Your task to perform on an android device: allow cookies in the chrome app Image 0: 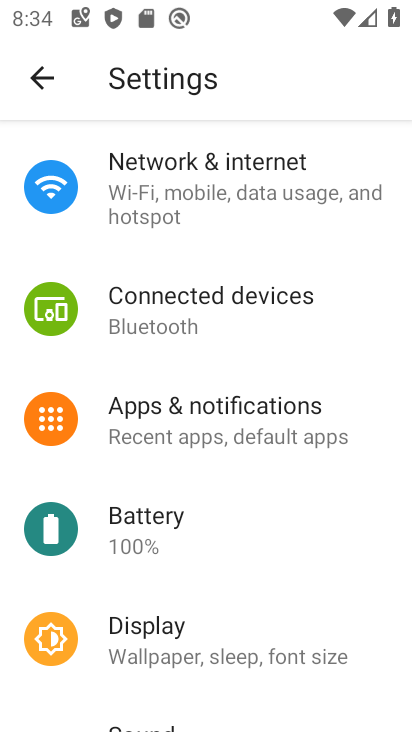
Step 0: press home button
Your task to perform on an android device: allow cookies in the chrome app Image 1: 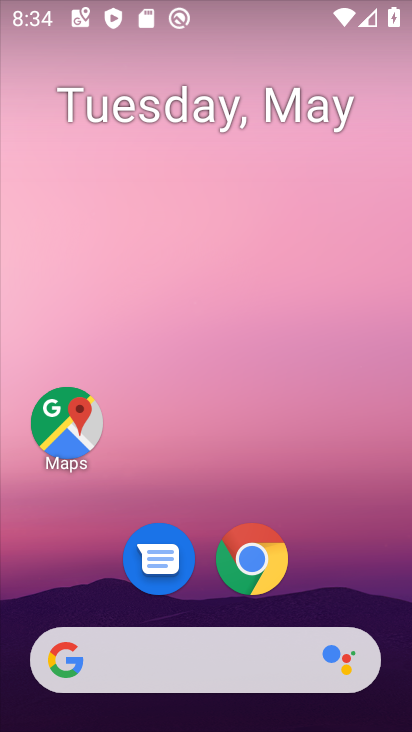
Step 1: click (262, 565)
Your task to perform on an android device: allow cookies in the chrome app Image 2: 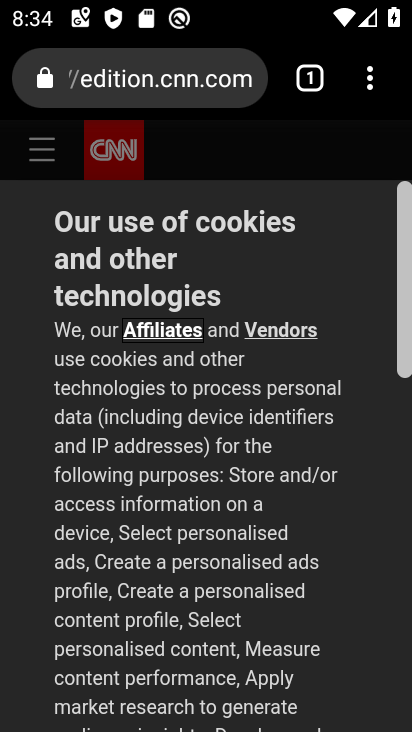
Step 2: drag from (373, 94) to (125, 610)
Your task to perform on an android device: allow cookies in the chrome app Image 3: 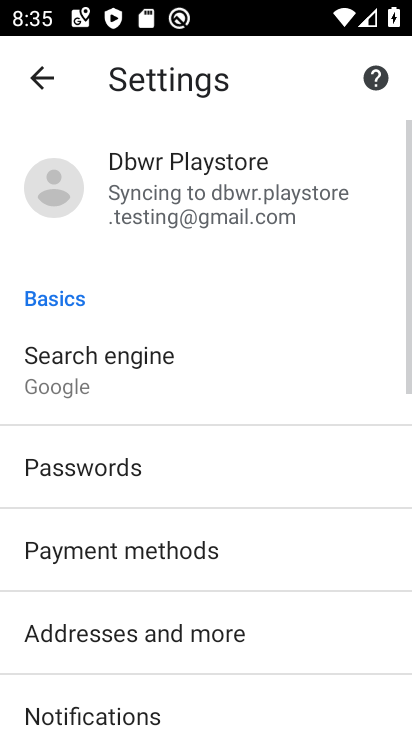
Step 3: drag from (135, 616) to (148, 241)
Your task to perform on an android device: allow cookies in the chrome app Image 4: 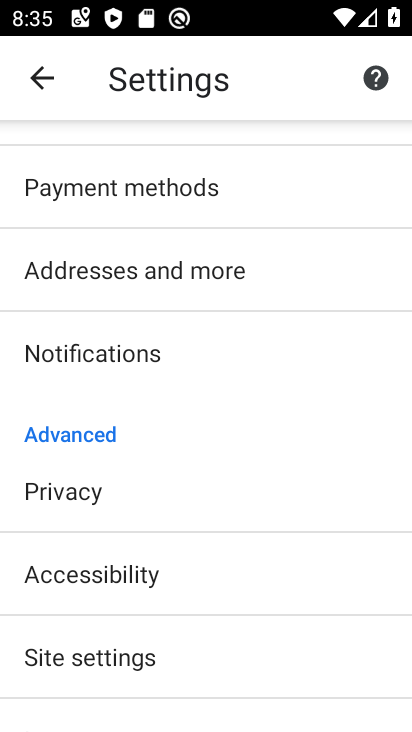
Step 4: click (86, 652)
Your task to perform on an android device: allow cookies in the chrome app Image 5: 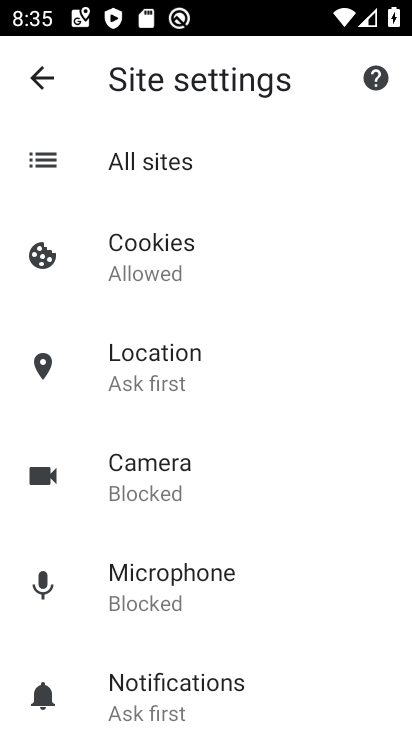
Step 5: click (168, 259)
Your task to perform on an android device: allow cookies in the chrome app Image 6: 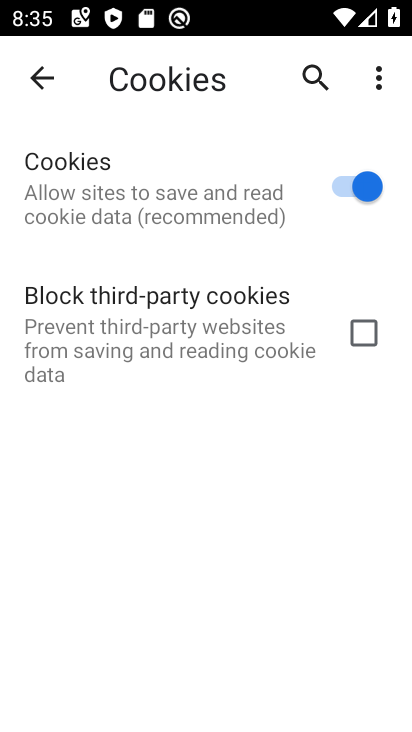
Step 6: task complete